Your task to perform on an android device: change notifications settings Image 0: 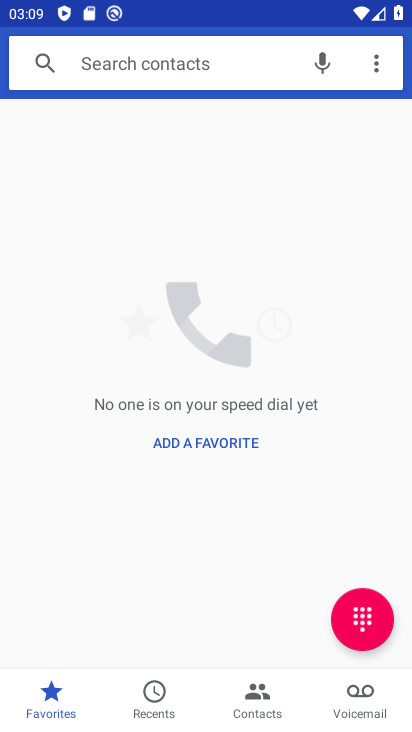
Step 0: press home button
Your task to perform on an android device: change notifications settings Image 1: 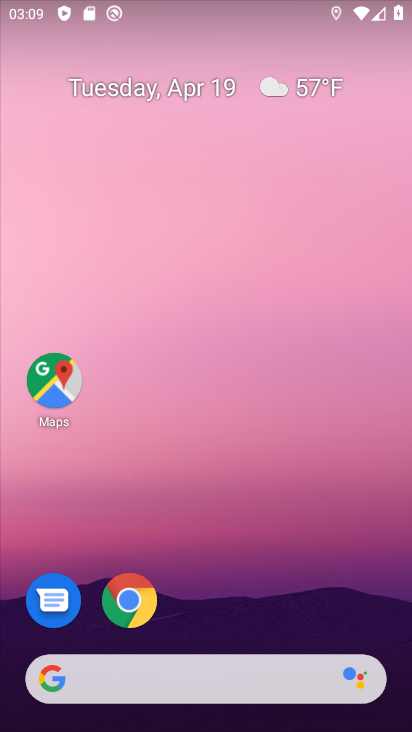
Step 1: drag from (370, 623) to (325, 304)
Your task to perform on an android device: change notifications settings Image 2: 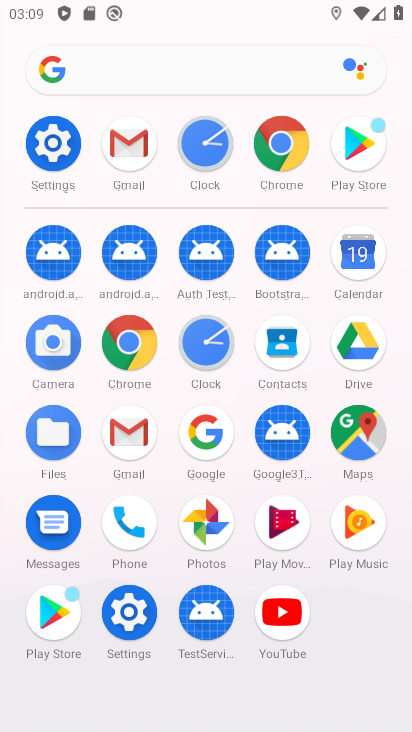
Step 2: click (148, 146)
Your task to perform on an android device: change notifications settings Image 3: 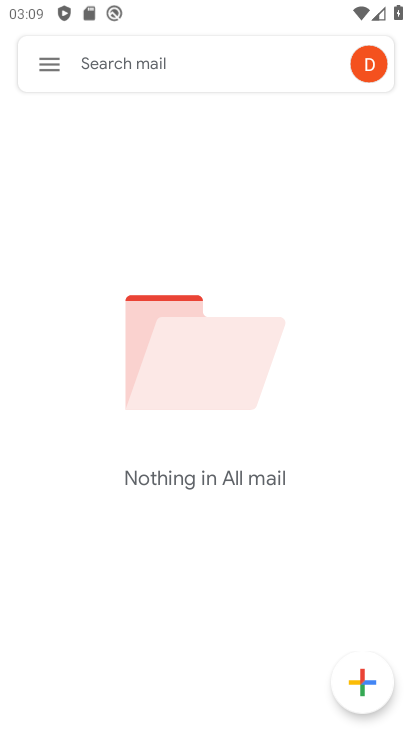
Step 3: press home button
Your task to perform on an android device: change notifications settings Image 4: 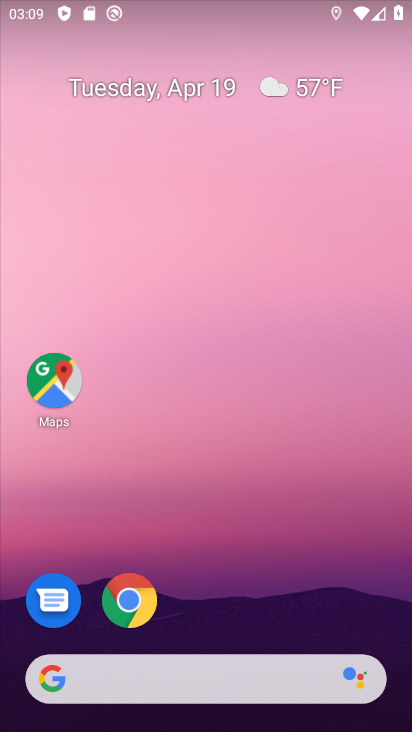
Step 4: click (263, 150)
Your task to perform on an android device: change notifications settings Image 5: 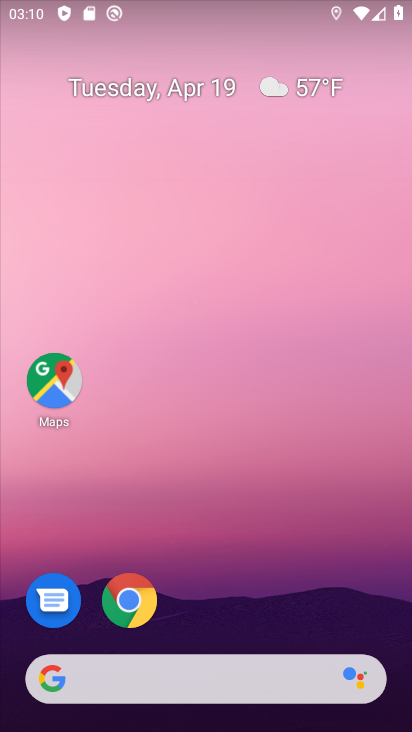
Step 5: drag from (262, 526) to (188, 132)
Your task to perform on an android device: change notifications settings Image 6: 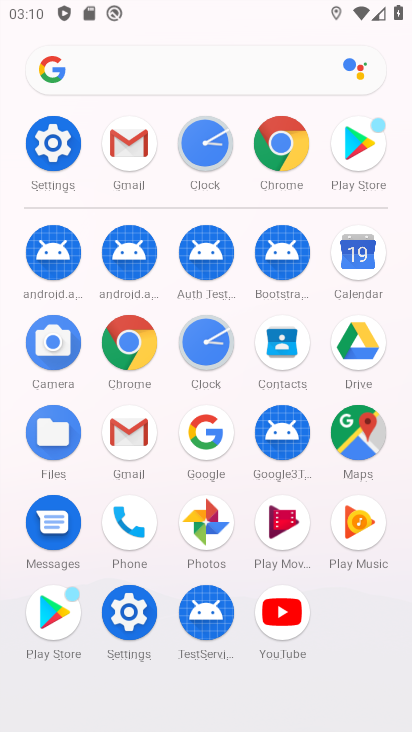
Step 6: click (128, 159)
Your task to perform on an android device: change notifications settings Image 7: 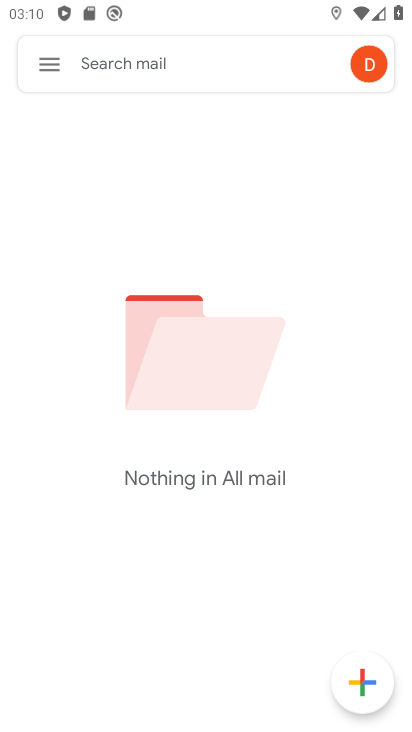
Step 7: click (55, 70)
Your task to perform on an android device: change notifications settings Image 8: 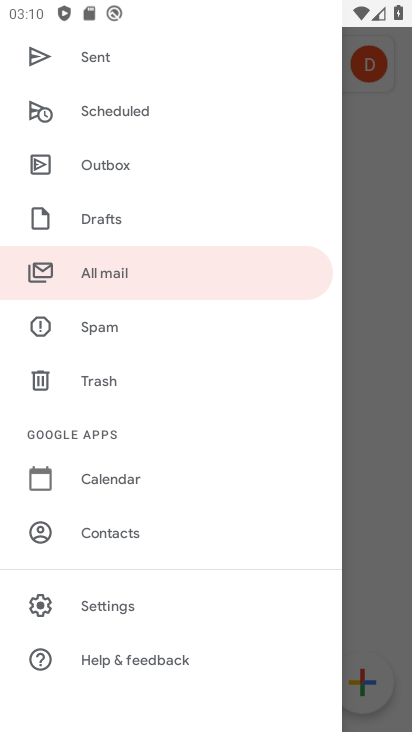
Step 8: click (184, 618)
Your task to perform on an android device: change notifications settings Image 9: 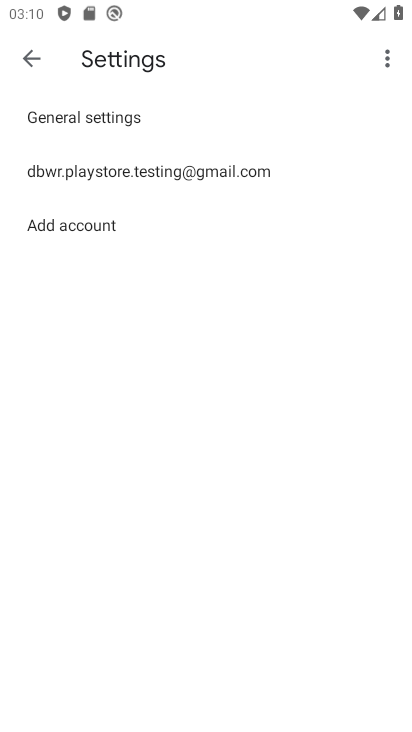
Step 9: click (216, 172)
Your task to perform on an android device: change notifications settings Image 10: 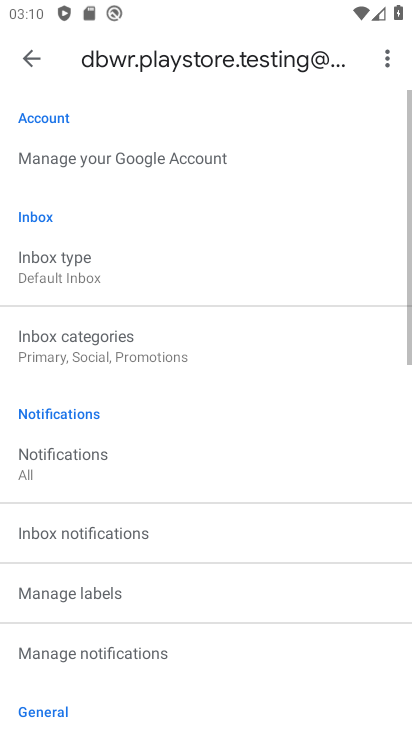
Step 10: drag from (274, 658) to (247, 297)
Your task to perform on an android device: change notifications settings Image 11: 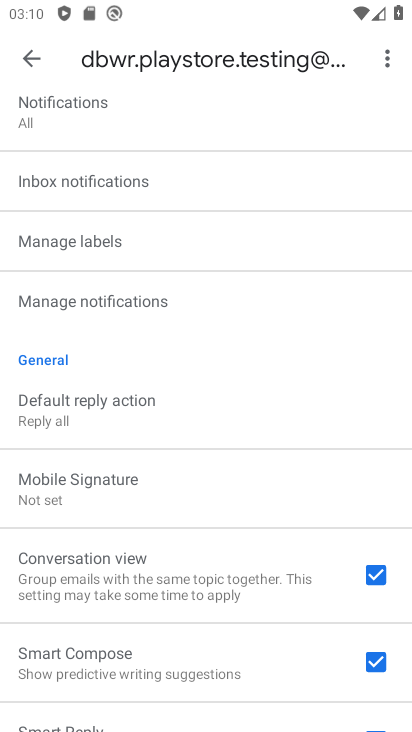
Step 11: click (242, 306)
Your task to perform on an android device: change notifications settings Image 12: 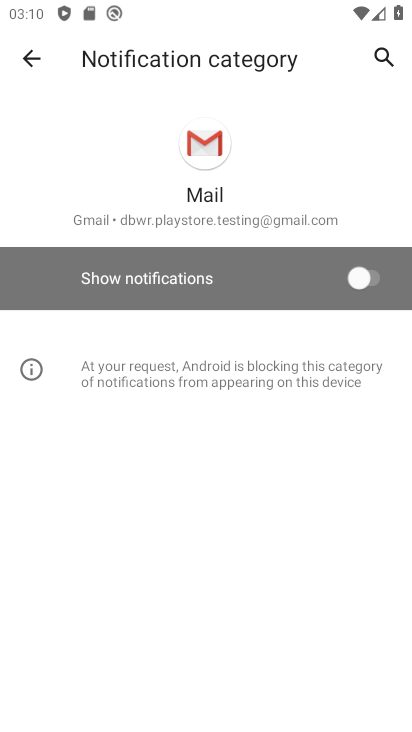
Step 12: press home button
Your task to perform on an android device: change notifications settings Image 13: 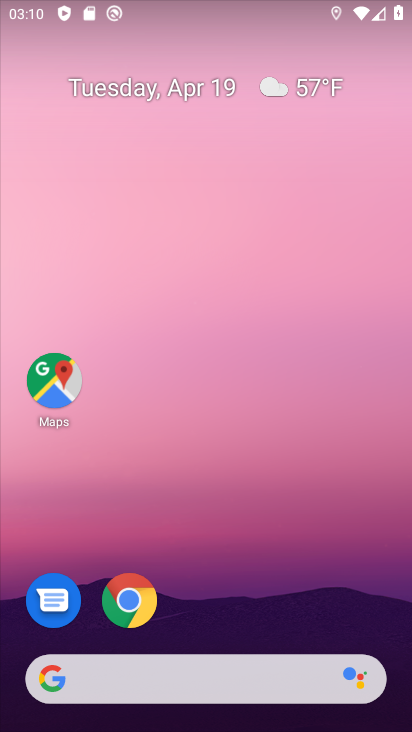
Step 13: drag from (298, 622) to (205, 83)
Your task to perform on an android device: change notifications settings Image 14: 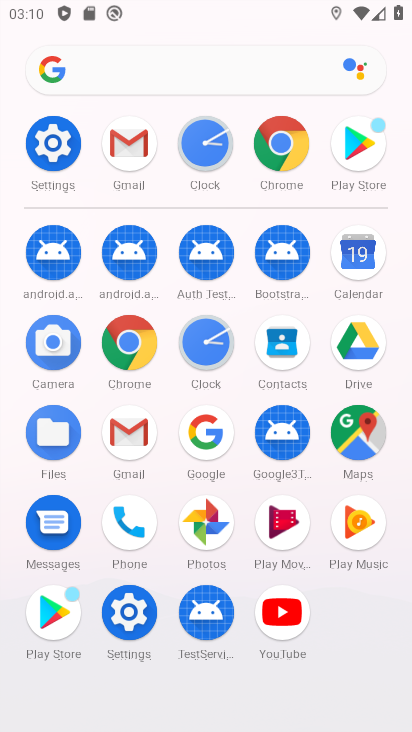
Step 14: click (66, 149)
Your task to perform on an android device: change notifications settings Image 15: 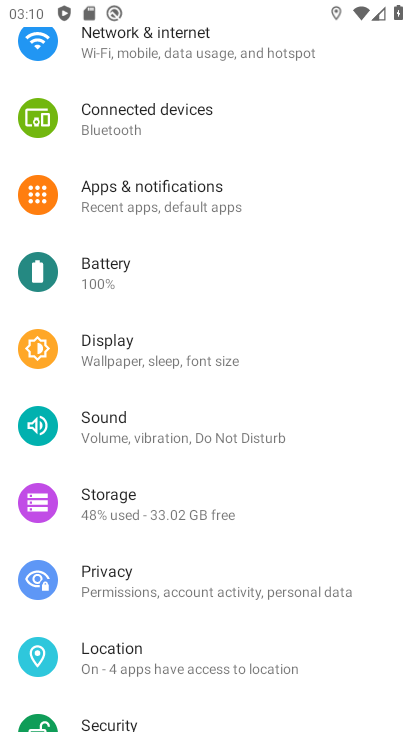
Step 15: drag from (257, 635) to (213, 557)
Your task to perform on an android device: change notifications settings Image 16: 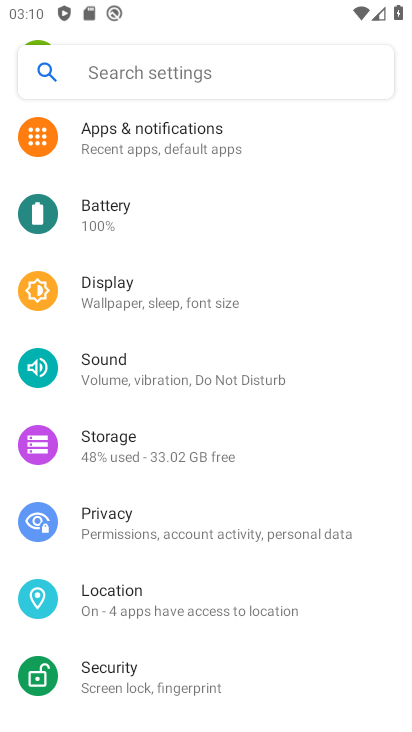
Step 16: click (242, 161)
Your task to perform on an android device: change notifications settings Image 17: 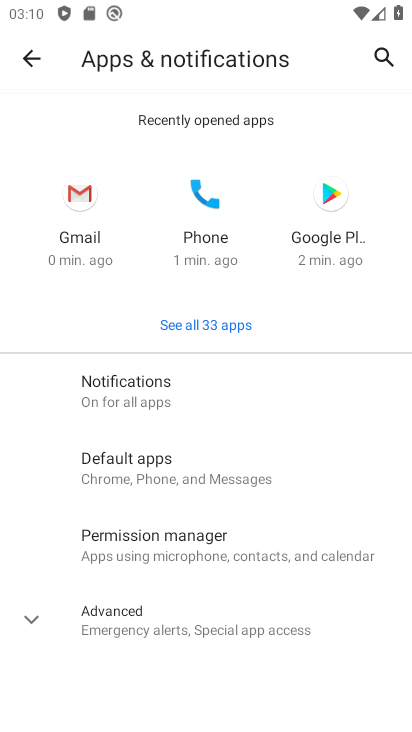
Step 17: click (258, 394)
Your task to perform on an android device: change notifications settings Image 18: 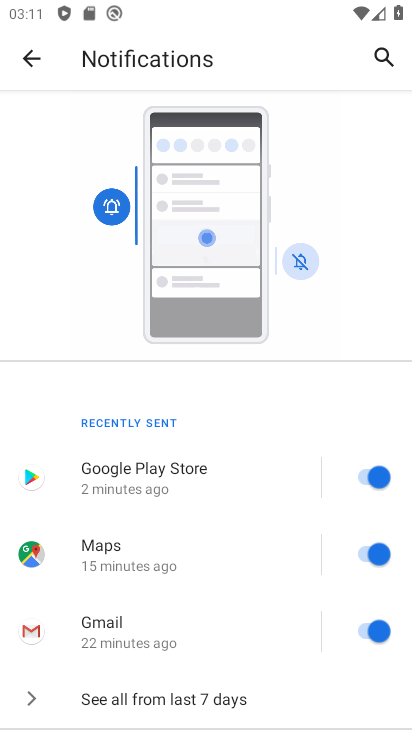
Step 18: drag from (278, 635) to (275, 214)
Your task to perform on an android device: change notifications settings Image 19: 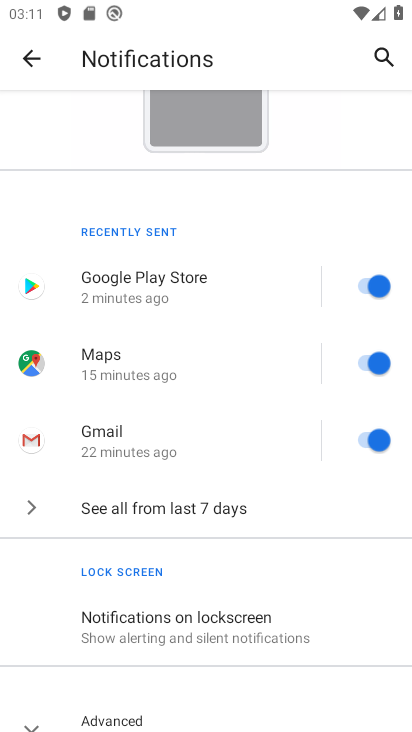
Step 19: drag from (260, 637) to (249, 413)
Your task to perform on an android device: change notifications settings Image 20: 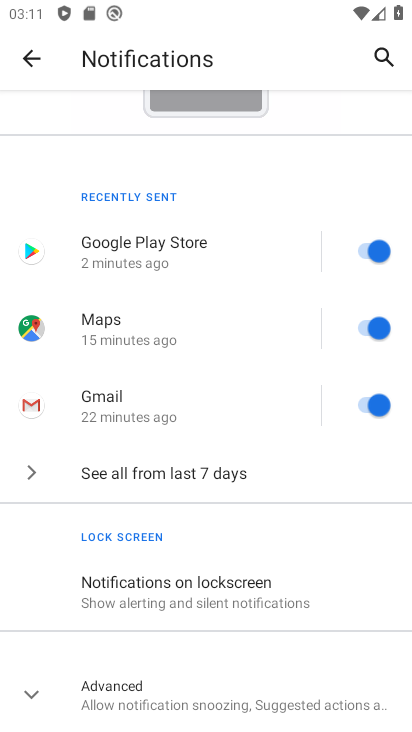
Step 20: click (263, 694)
Your task to perform on an android device: change notifications settings Image 21: 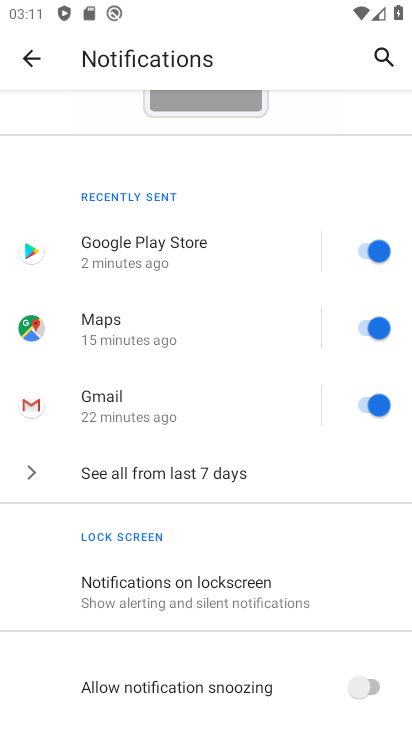
Step 21: drag from (265, 656) to (218, 310)
Your task to perform on an android device: change notifications settings Image 22: 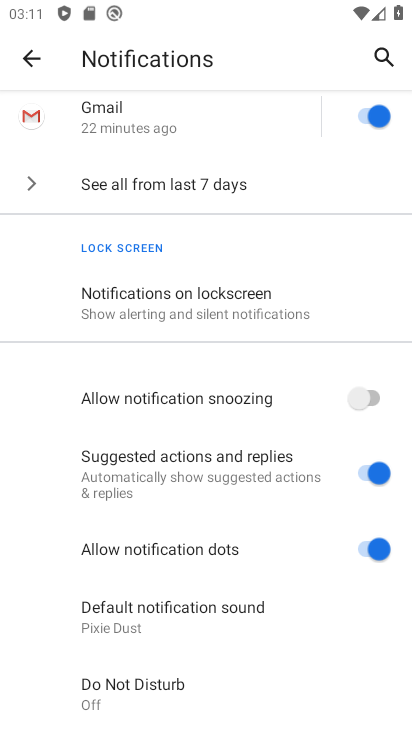
Step 22: click (366, 397)
Your task to perform on an android device: change notifications settings Image 23: 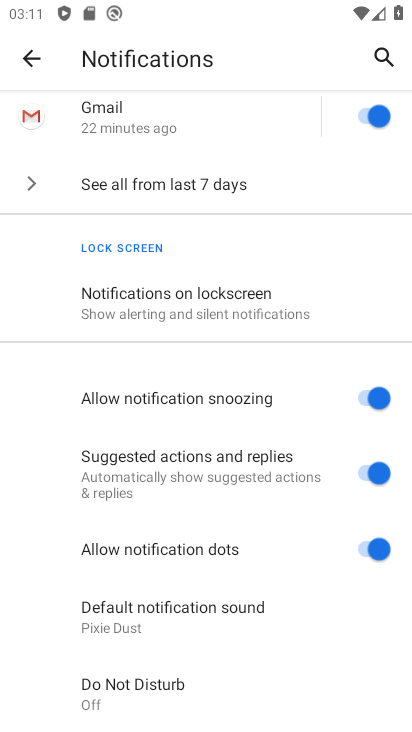
Step 23: click (363, 464)
Your task to perform on an android device: change notifications settings Image 24: 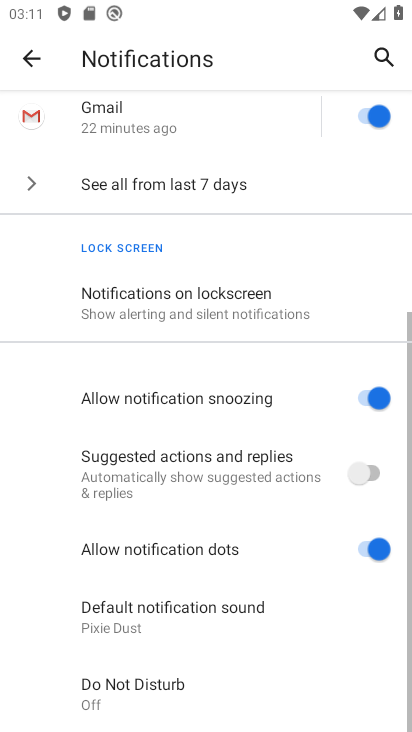
Step 24: click (369, 542)
Your task to perform on an android device: change notifications settings Image 25: 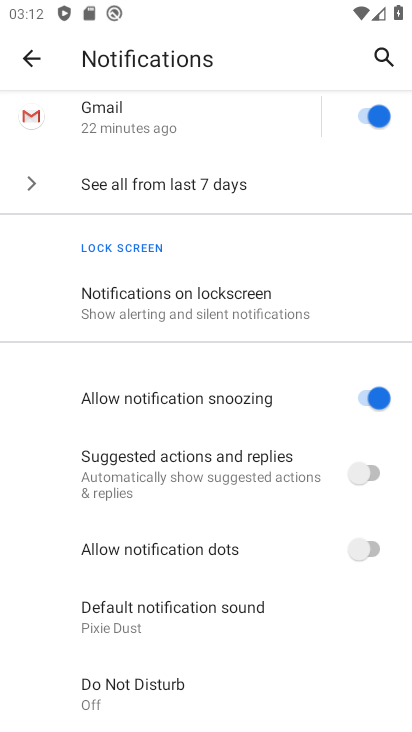
Step 25: task complete